Your task to perform on an android device: Go to Google Image 0: 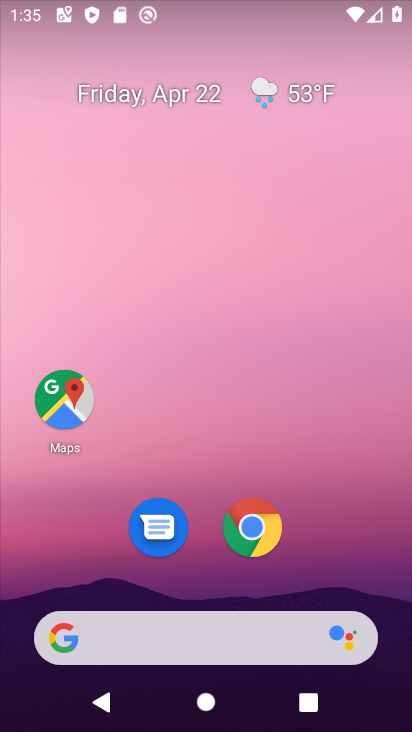
Step 0: drag from (350, 585) to (349, 112)
Your task to perform on an android device: Go to Google Image 1: 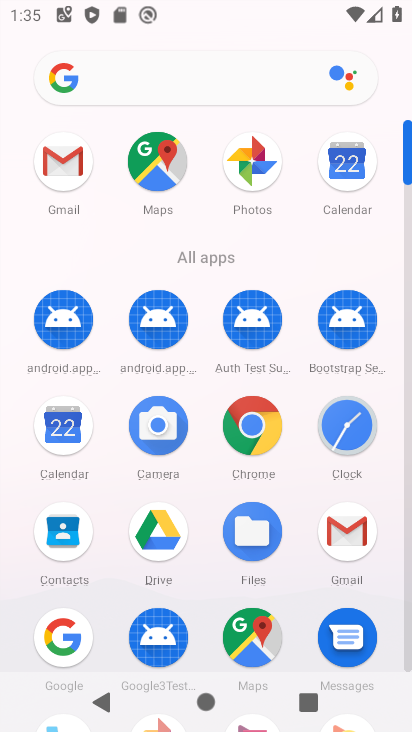
Step 1: click (57, 656)
Your task to perform on an android device: Go to Google Image 2: 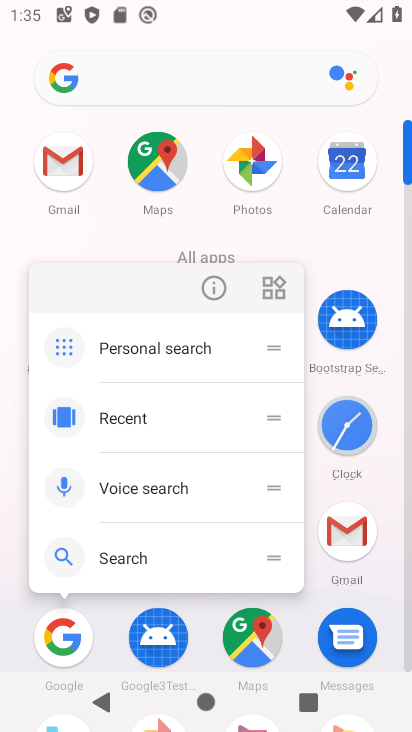
Step 2: click (72, 630)
Your task to perform on an android device: Go to Google Image 3: 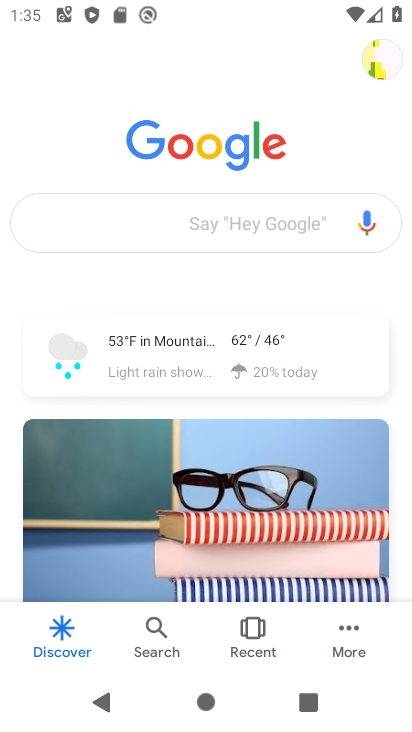
Step 3: task complete